Your task to perform on an android device: open a bookmark in the chrome app Image 0: 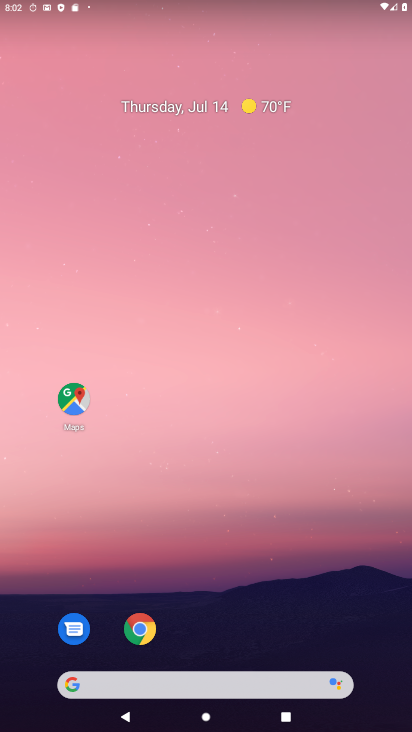
Step 0: drag from (280, 535) to (233, 0)
Your task to perform on an android device: open a bookmark in the chrome app Image 1: 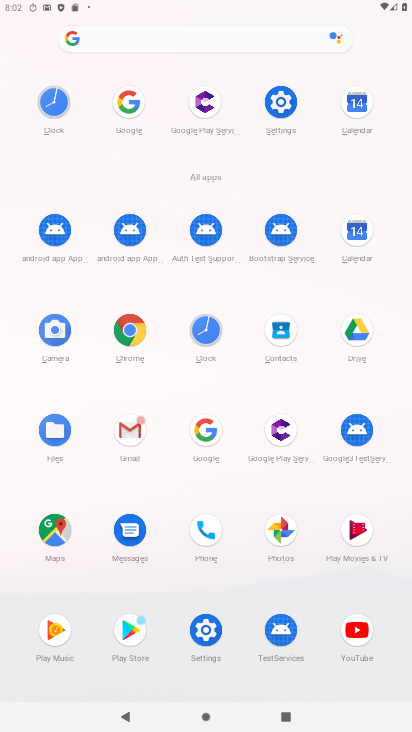
Step 1: click (143, 332)
Your task to perform on an android device: open a bookmark in the chrome app Image 2: 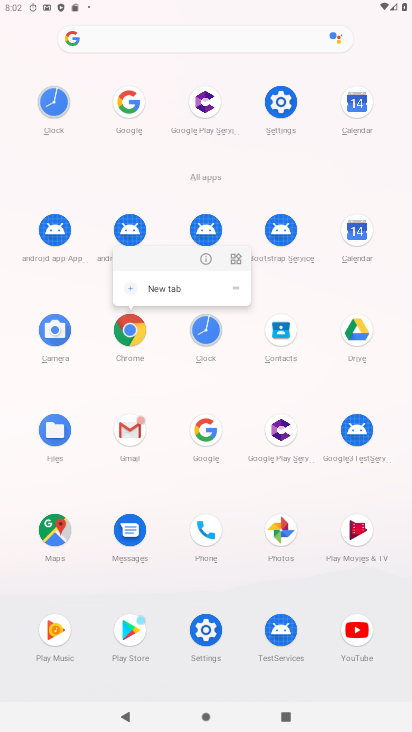
Step 2: click (143, 331)
Your task to perform on an android device: open a bookmark in the chrome app Image 3: 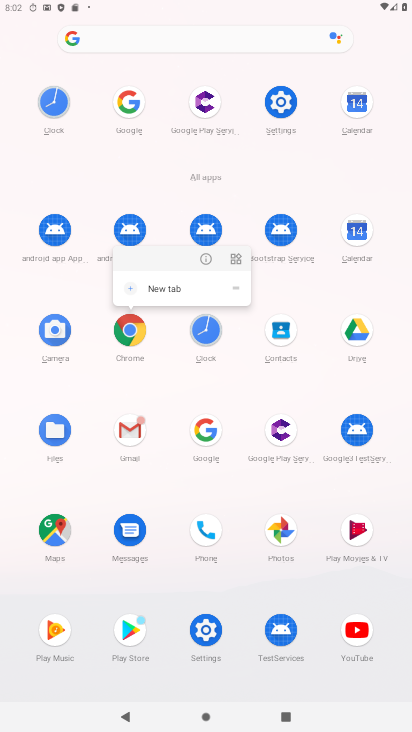
Step 3: click (112, 330)
Your task to perform on an android device: open a bookmark in the chrome app Image 4: 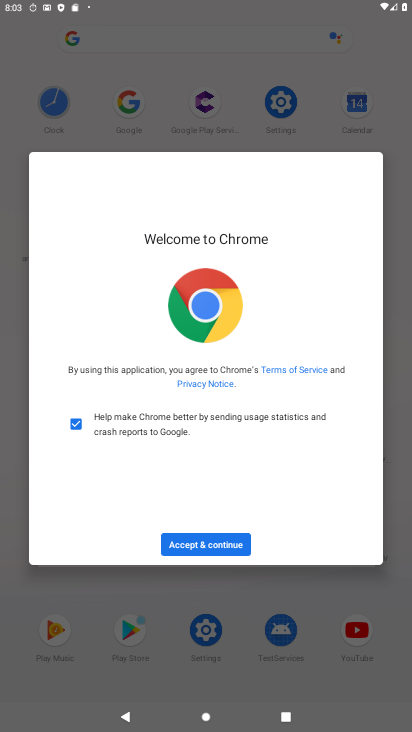
Step 4: click (183, 534)
Your task to perform on an android device: open a bookmark in the chrome app Image 5: 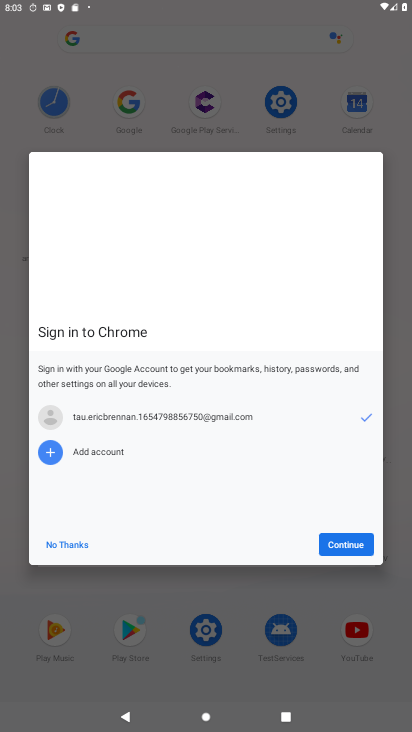
Step 5: click (74, 543)
Your task to perform on an android device: open a bookmark in the chrome app Image 6: 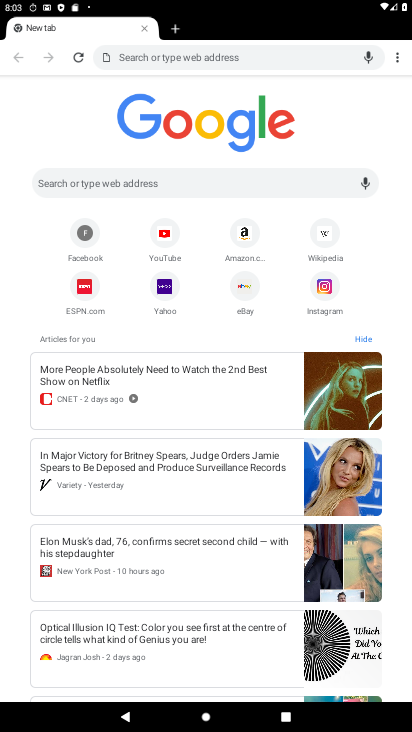
Step 6: drag from (400, 57) to (285, 112)
Your task to perform on an android device: open a bookmark in the chrome app Image 7: 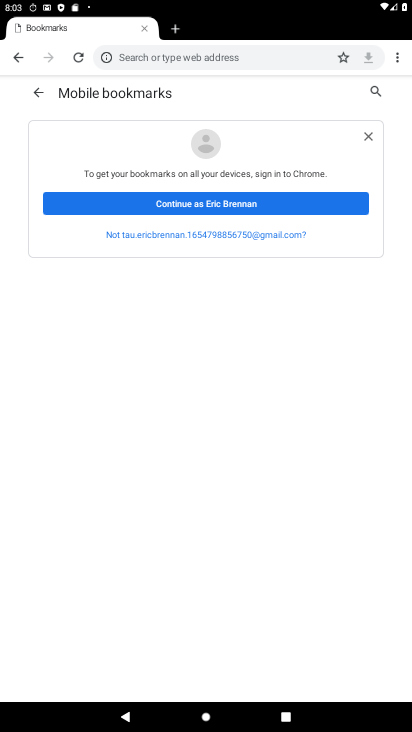
Step 7: click (204, 206)
Your task to perform on an android device: open a bookmark in the chrome app Image 8: 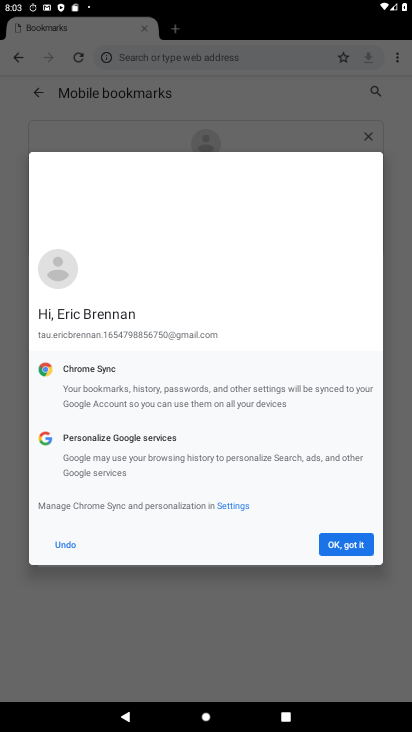
Step 8: click (369, 544)
Your task to perform on an android device: open a bookmark in the chrome app Image 9: 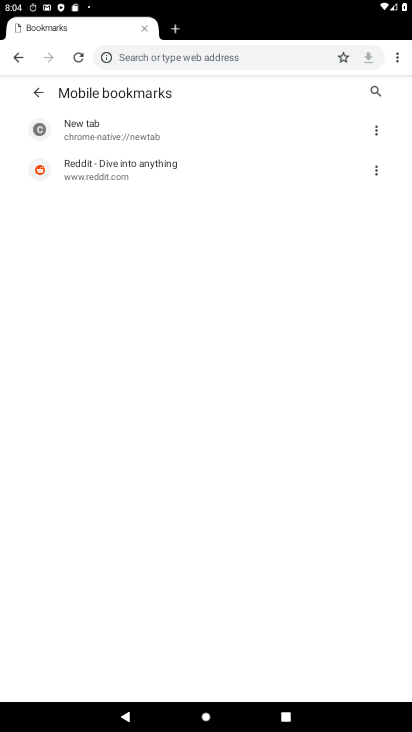
Step 9: task complete